Your task to perform on an android device: Add razer blade to the cart on bestbuy Image 0: 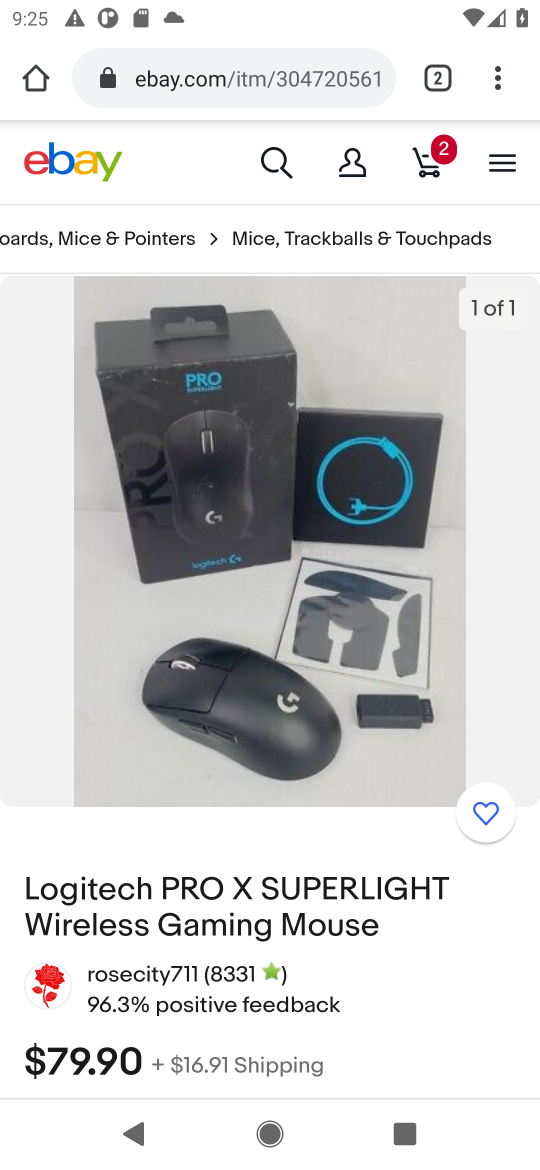
Step 0: task complete